Your task to perform on an android device: toggle location history Image 0: 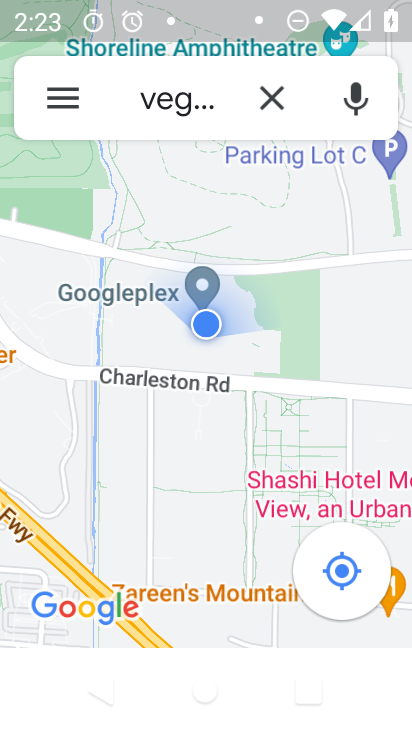
Step 0: press home button
Your task to perform on an android device: toggle location history Image 1: 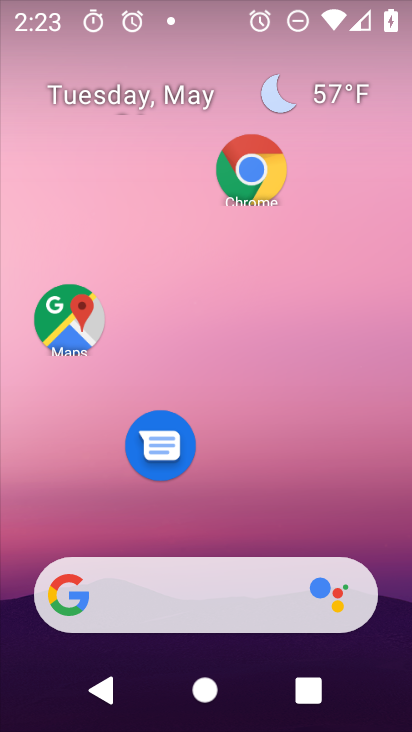
Step 1: drag from (225, 725) to (252, 123)
Your task to perform on an android device: toggle location history Image 2: 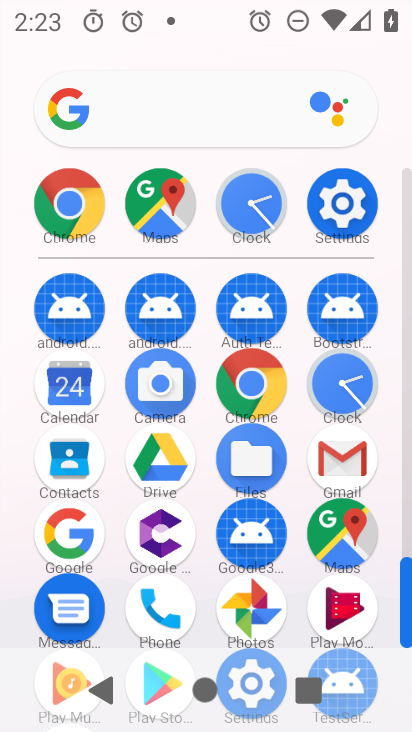
Step 2: click (351, 211)
Your task to perform on an android device: toggle location history Image 3: 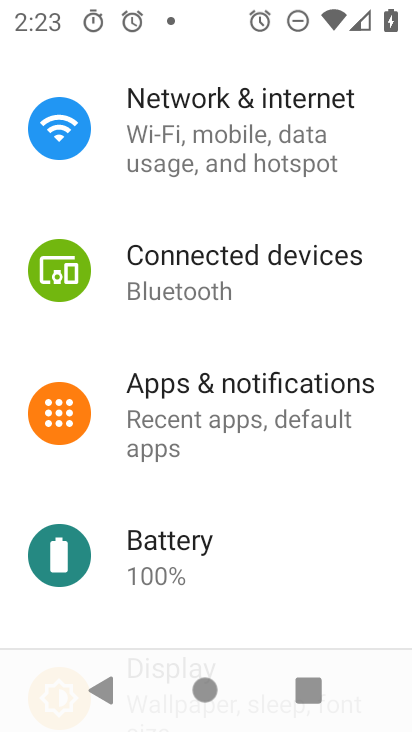
Step 3: drag from (215, 607) to (217, 283)
Your task to perform on an android device: toggle location history Image 4: 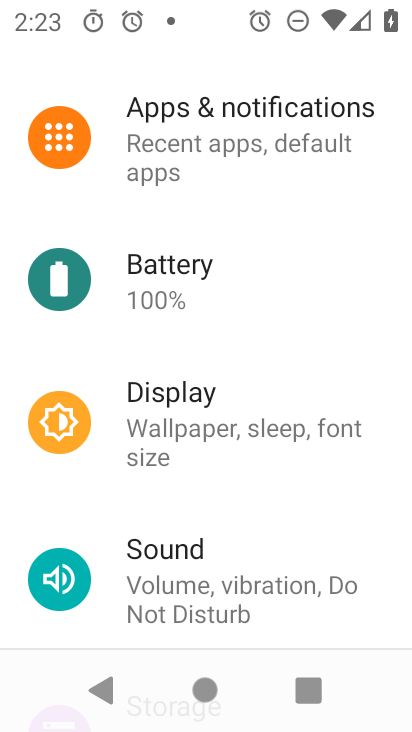
Step 4: drag from (194, 592) to (199, 277)
Your task to perform on an android device: toggle location history Image 5: 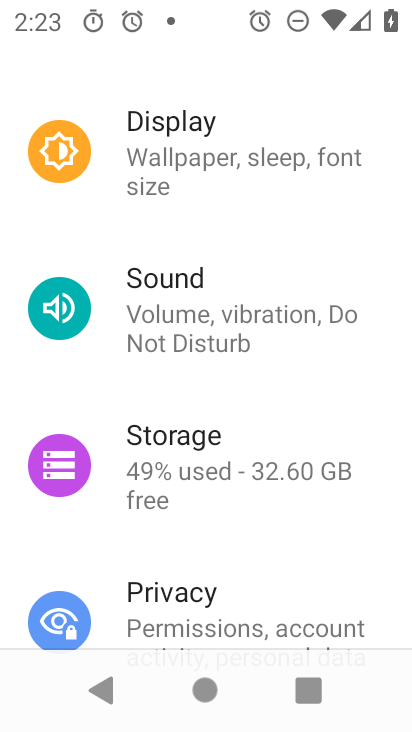
Step 5: drag from (177, 590) to (180, 237)
Your task to perform on an android device: toggle location history Image 6: 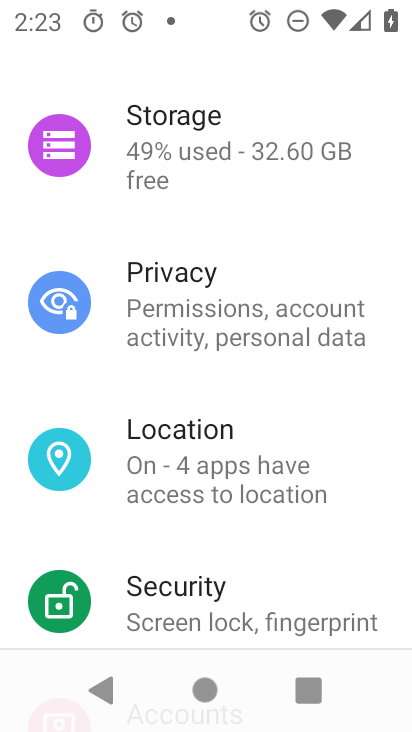
Step 6: click (198, 467)
Your task to perform on an android device: toggle location history Image 7: 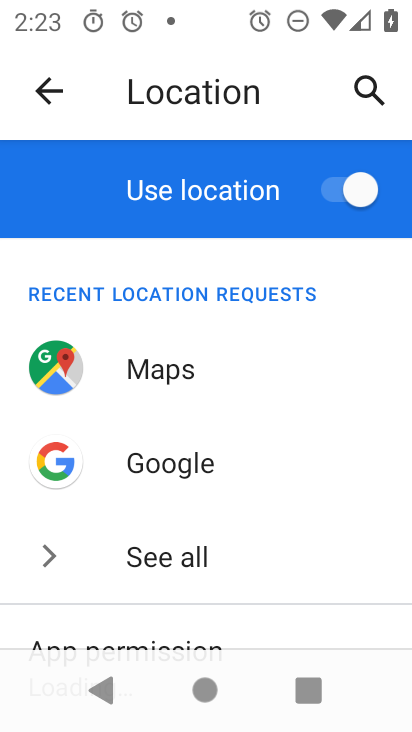
Step 7: drag from (196, 632) to (202, 263)
Your task to perform on an android device: toggle location history Image 8: 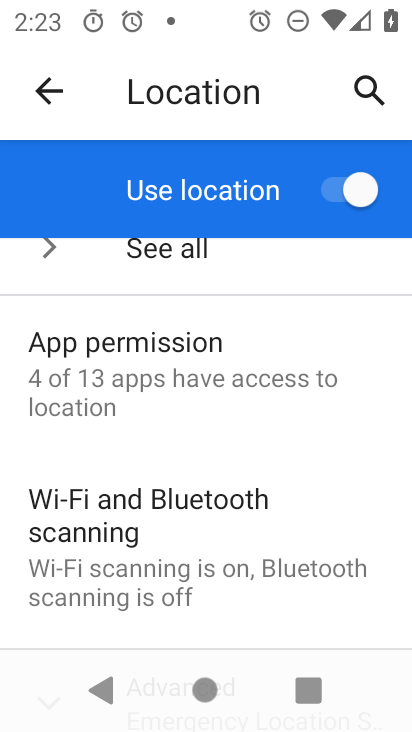
Step 8: drag from (222, 606) to (224, 311)
Your task to perform on an android device: toggle location history Image 9: 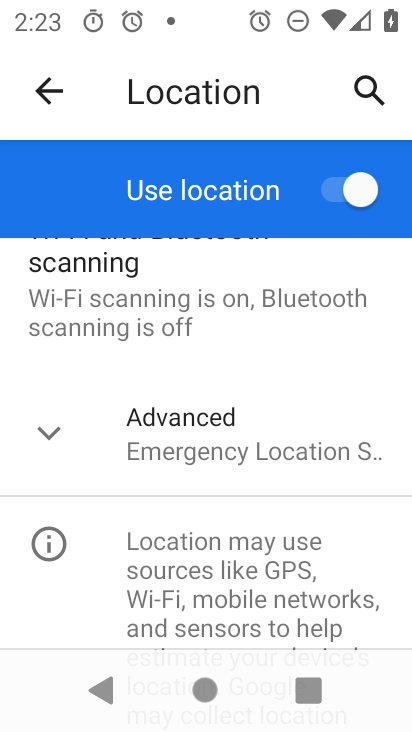
Step 9: click (191, 452)
Your task to perform on an android device: toggle location history Image 10: 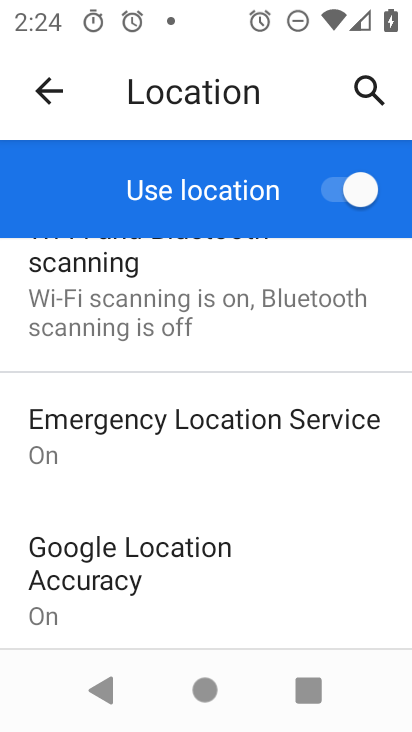
Step 10: drag from (158, 614) to (170, 342)
Your task to perform on an android device: toggle location history Image 11: 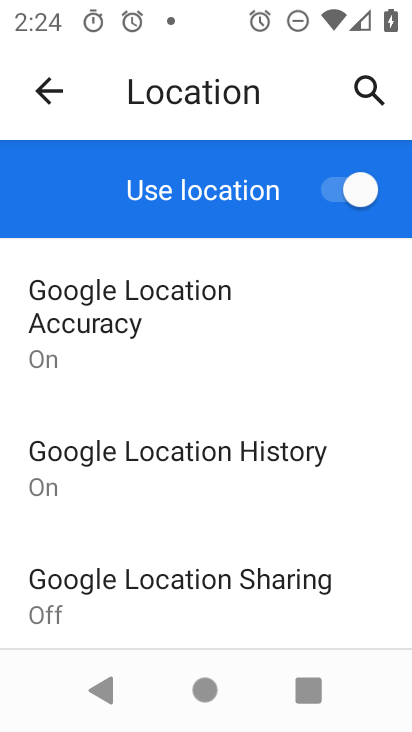
Step 11: click (176, 449)
Your task to perform on an android device: toggle location history Image 12: 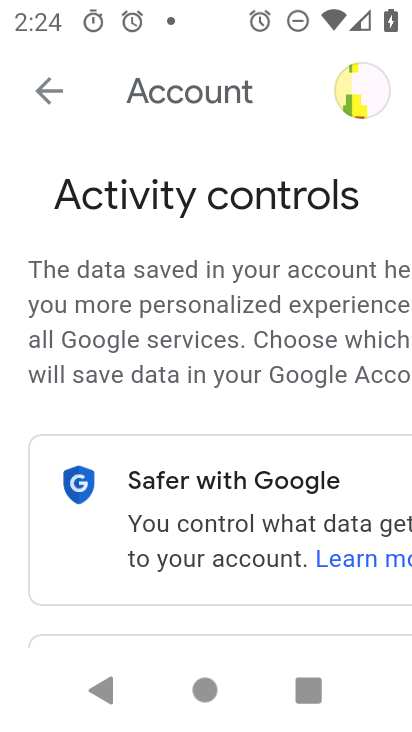
Step 12: drag from (205, 623) to (225, 261)
Your task to perform on an android device: toggle location history Image 13: 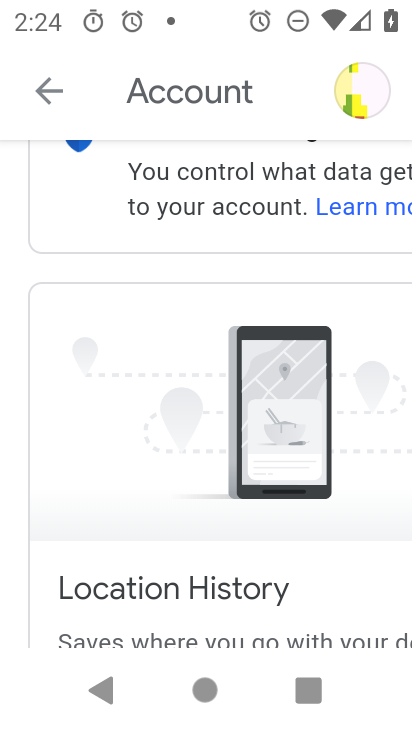
Step 13: drag from (254, 566) to (255, 220)
Your task to perform on an android device: toggle location history Image 14: 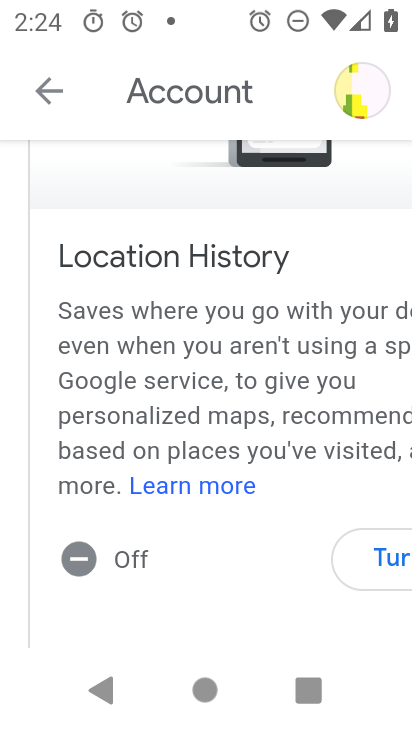
Step 14: click (367, 547)
Your task to perform on an android device: toggle location history Image 15: 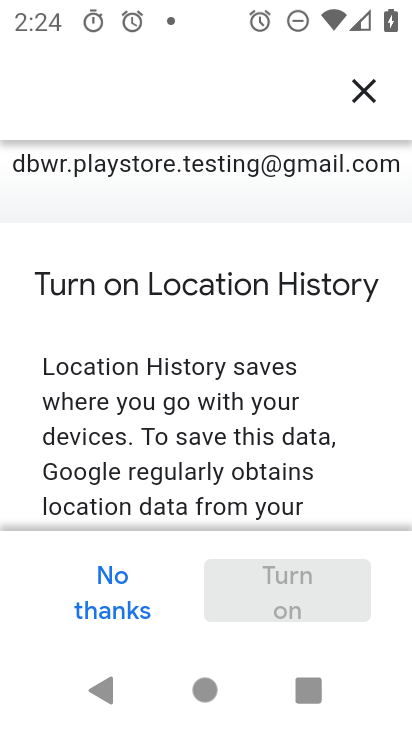
Step 15: drag from (278, 503) to (268, 161)
Your task to perform on an android device: toggle location history Image 16: 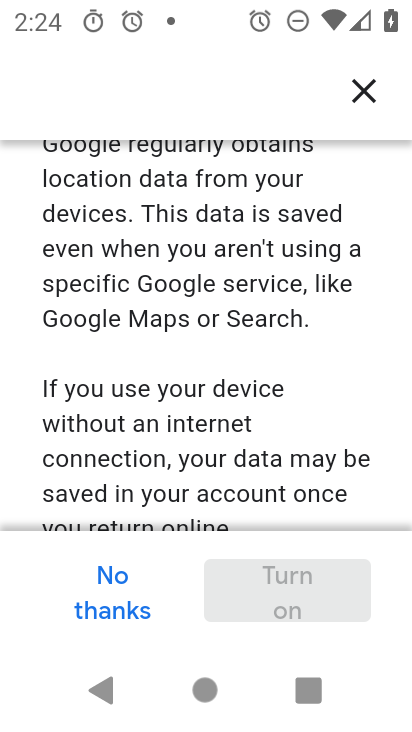
Step 16: drag from (328, 517) to (333, 196)
Your task to perform on an android device: toggle location history Image 17: 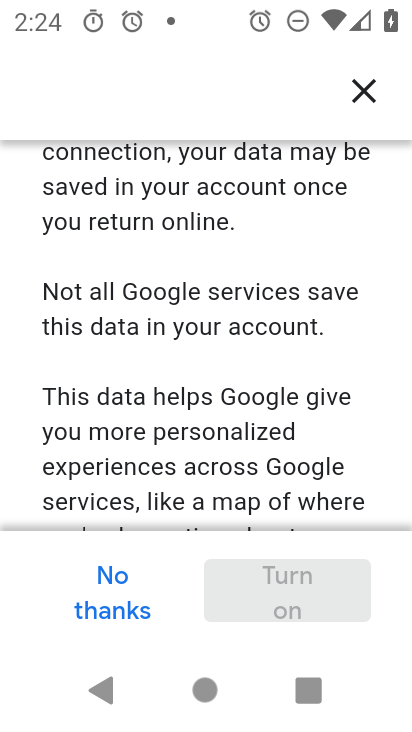
Step 17: drag from (347, 500) to (332, 171)
Your task to perform on an android device: toggle location history Image 18: 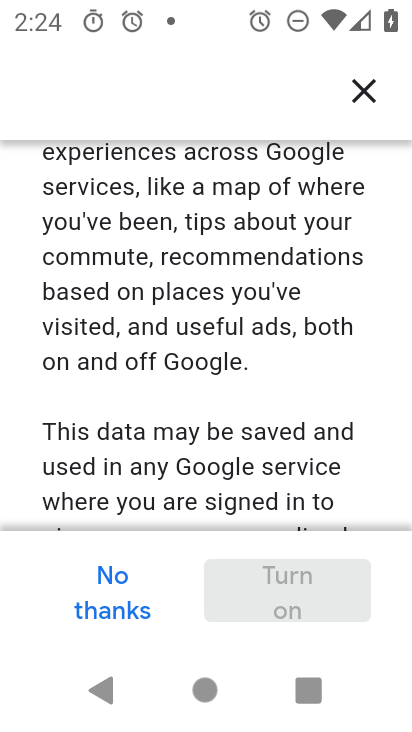
Step 18: drag from (345, 498) to (341, 145)
Your task to perform on an android device: toggle location history Image 19: 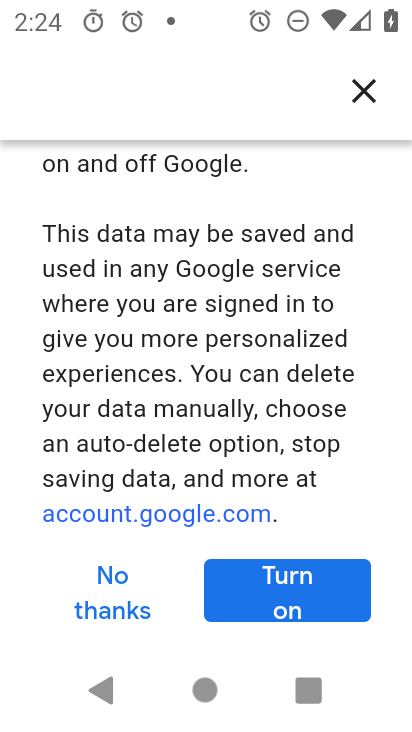
Step 19: click (302, 586)
Your task to perform on an android device: toggle location history Image 20: 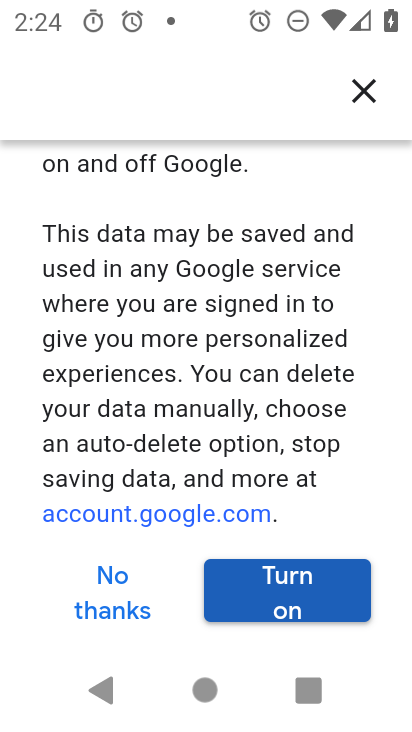
Step 20: click (296, 584)
Your task to perform on an android device: toggle location history Image 21: 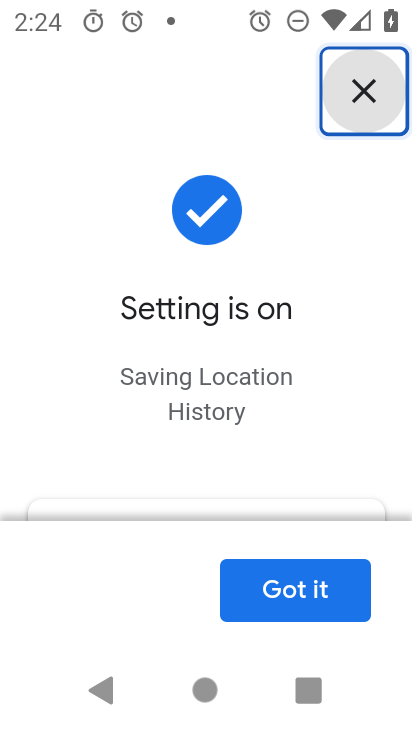
Step 21: task complete